Your task to perform on an android device: Open Maps and search for coffee Image 0: 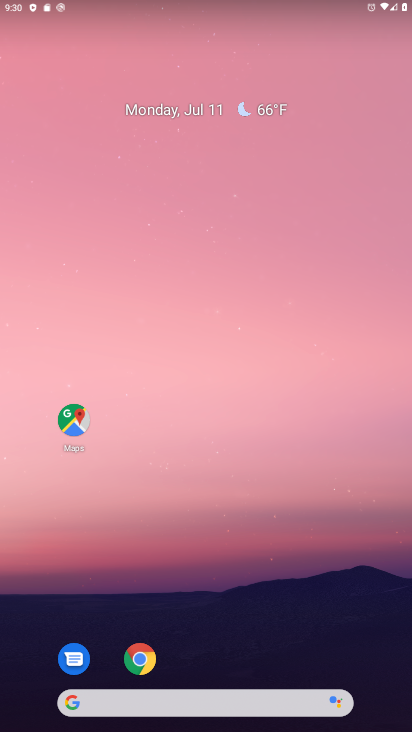
Step 0: drag from (351, 650) to (367, 118)
Your task to perform on an android device: Open Maps and search for coffee Image 1: 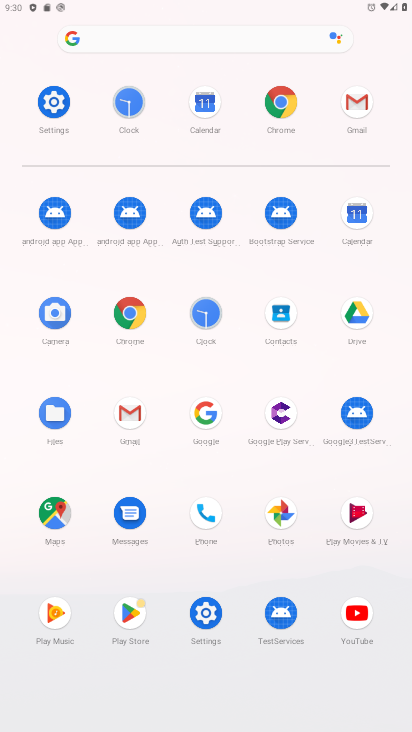
Step 1: click (51, 519)
Your task to perform on an android device: Open Maps and search for coffee Image 2: 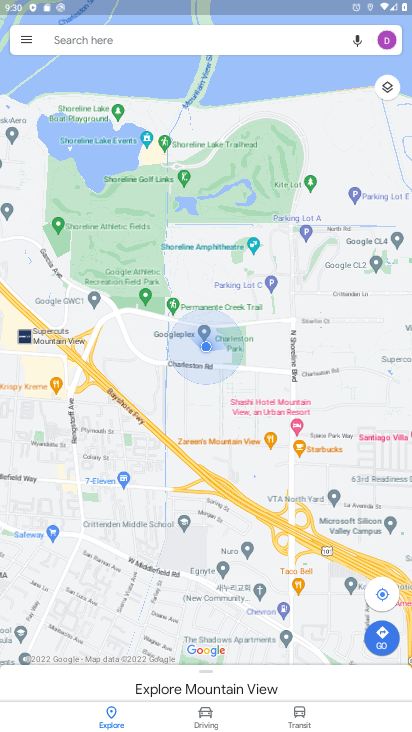
Step 2: click (165, 33)
Your task to perform on an android device: Open Maps and search for coffee Image 3: 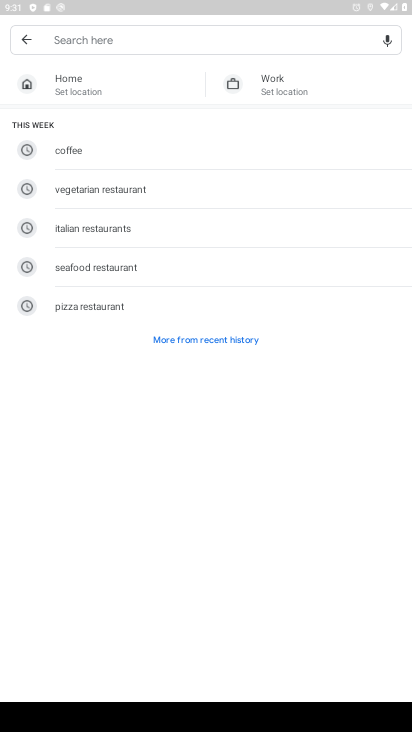
Step 3: type "coffee"
Your task to perform on an android device: Open Maps and search for coffee Image 4: 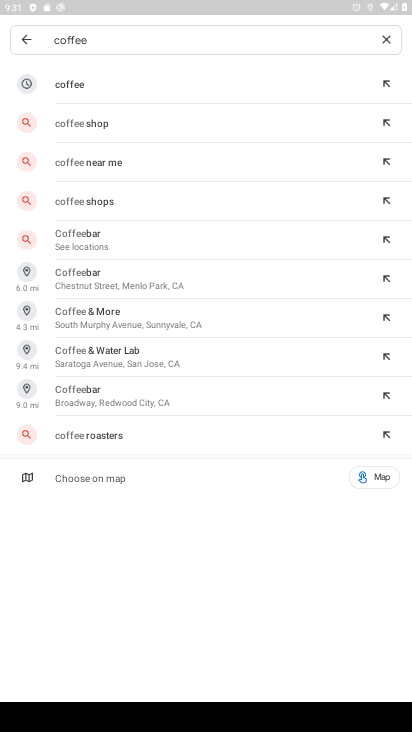
Step 4: click (206, 93)
Your task to perform on an android device: Open Maps and search for coffee Image 5: 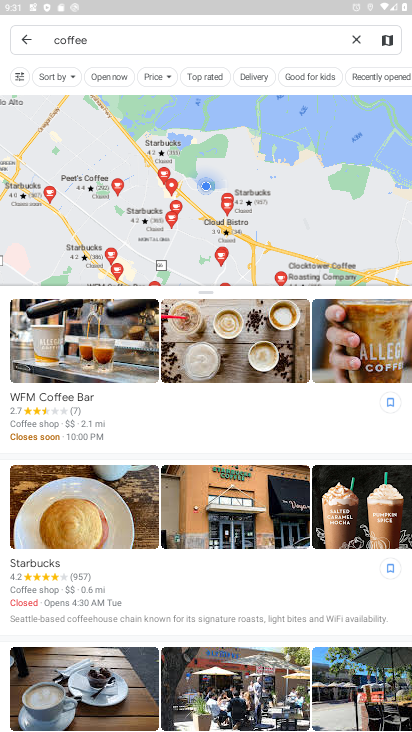
Step 5: task complete